Your task to perform on an android device: turn on airplane mode Image 0: 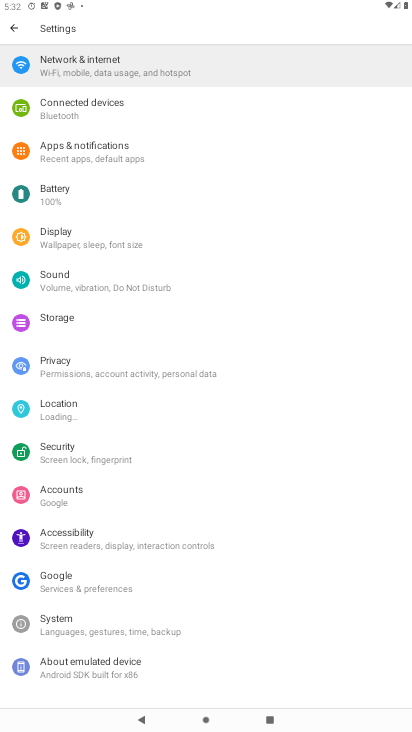
Step 0: drag from (355, 676) to (212, 77)
Your task to perform on an android device: turn on airplane mode Image 1: 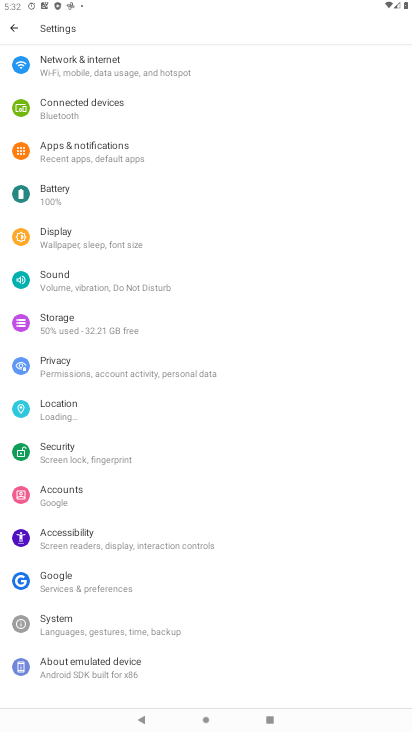
Step 1: press home button
Your task to perform on an android device: turn on airplane mode Image 2: 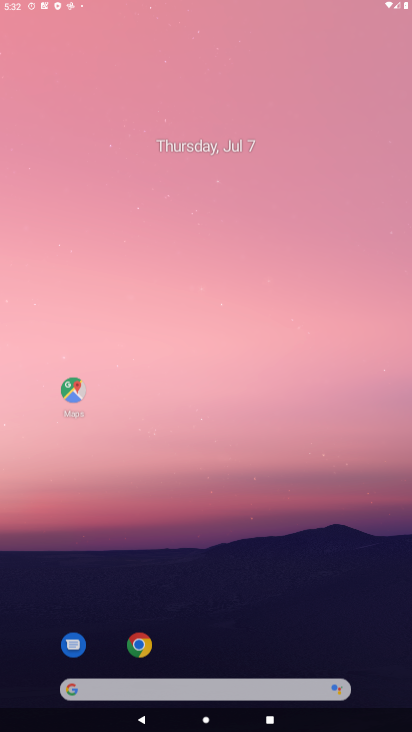
Step 2: drag from (271, 591) to (124, 20)
Your task to perform on an android device: turn on airplane mode Image 3: 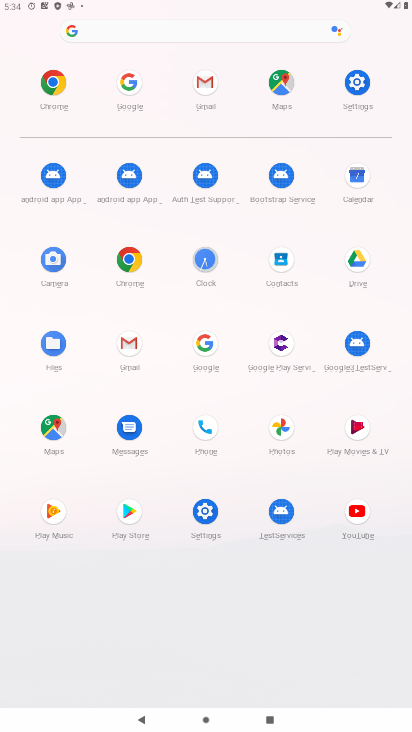
Step 3: drag from (288, 3) to (334, 562)
Your task to perform on an android device: turn on airplane mode Image 4: 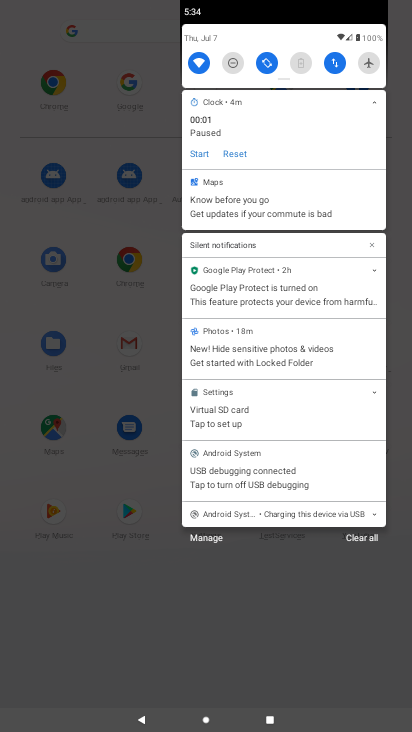
Step 4: click (370, 65)
Your task to perform on an android device: turn on airplane mode Image 5: 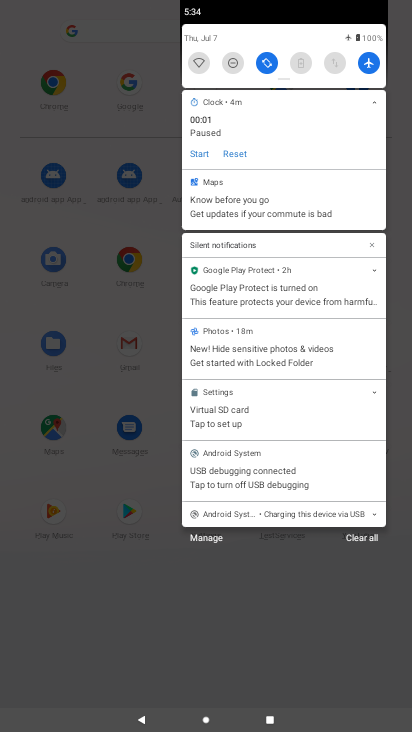
Step 5: task complete